Your task to perform on an android device: Go to battery settings Image 0: 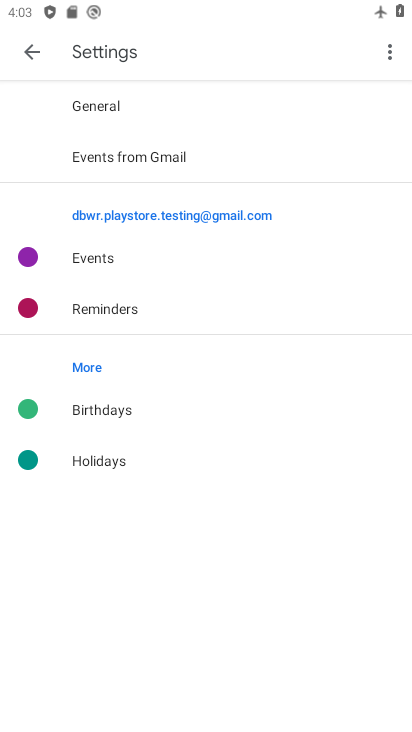
Step 0: press home button
Your task to perform on an android device: Go to battery settings Image 1: 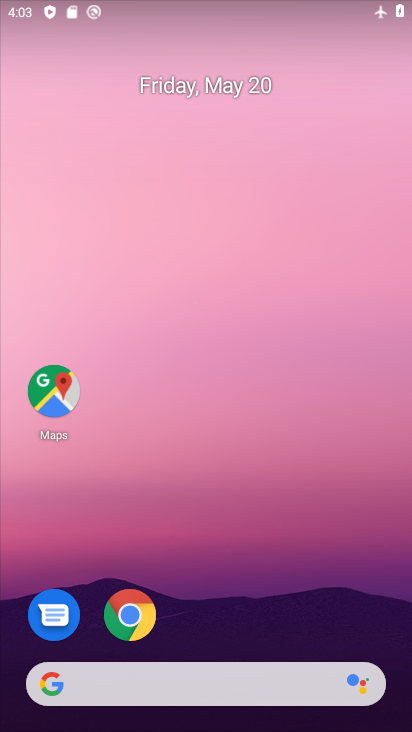
Step 1: drag from (218, 668) to (366, 182)
Your task to perform on an android device: Go to battery settings Image 2: 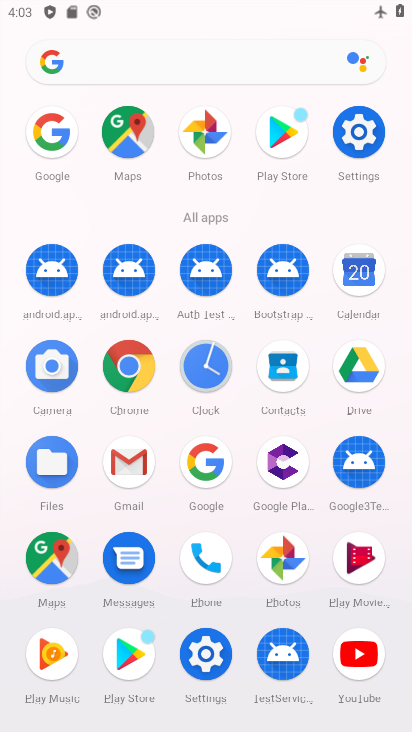
Step 2: click (365, 164)
Your task to perform on an android device: Go to battery settings Image 3: 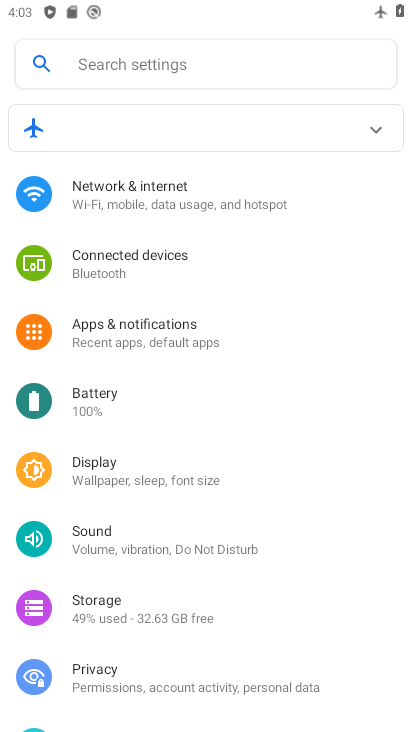
Step 3: click (197, 410)
Your task to perform on an android device: Go to battery settings Image 4: 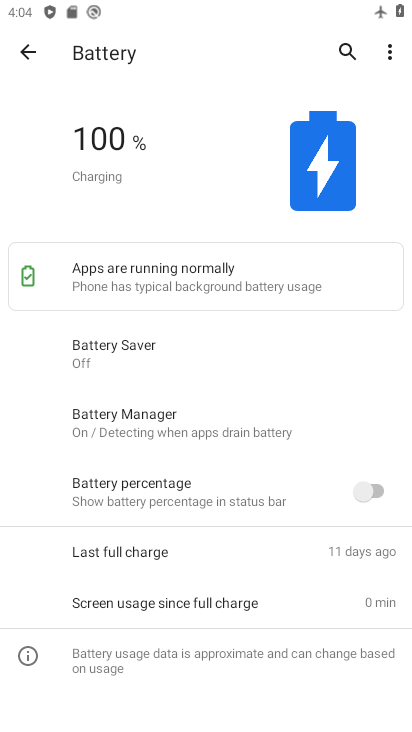
Step 4: task complete